Your task to perform on an android device: open app "Skype" (install if not already installed) Image 0: 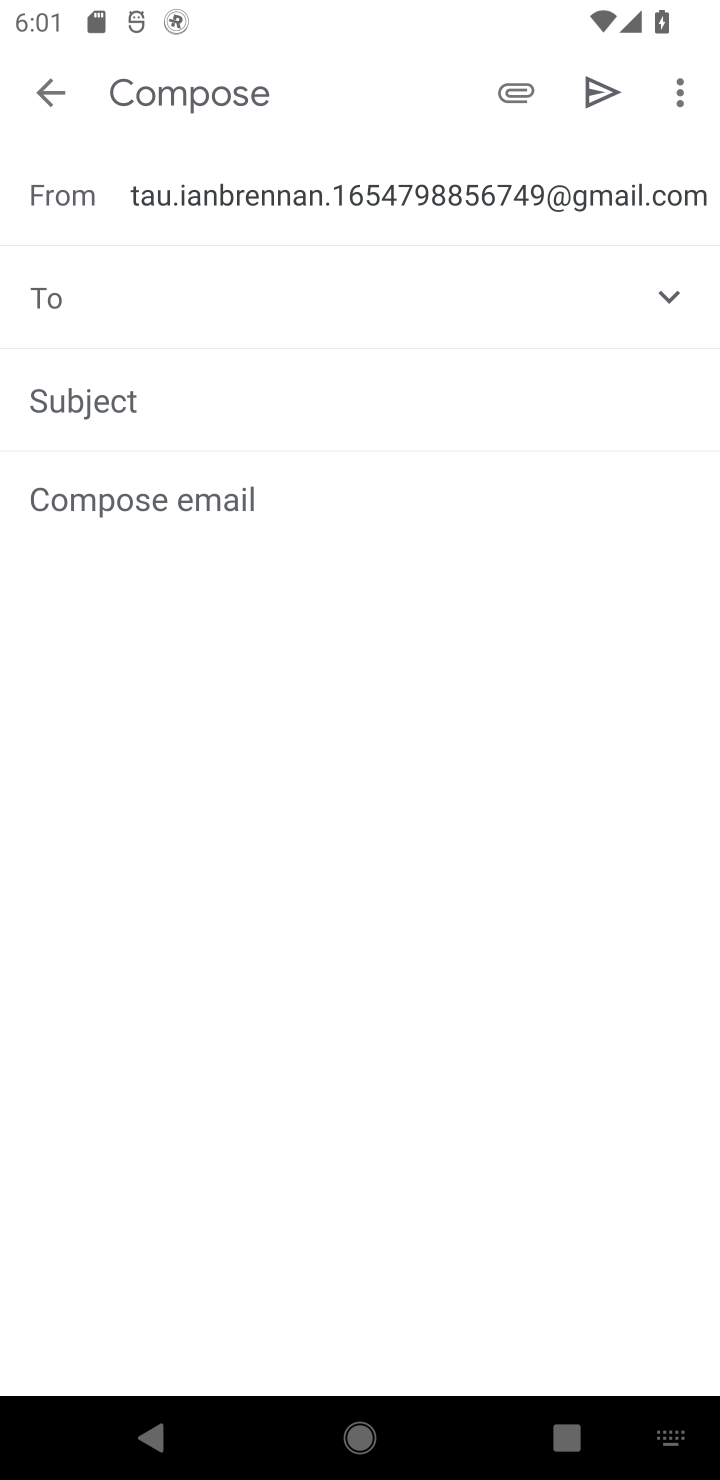
Step 0: press home button
Your task to perform on an android device: open app "Skype" (install if not already installed) Image 1: 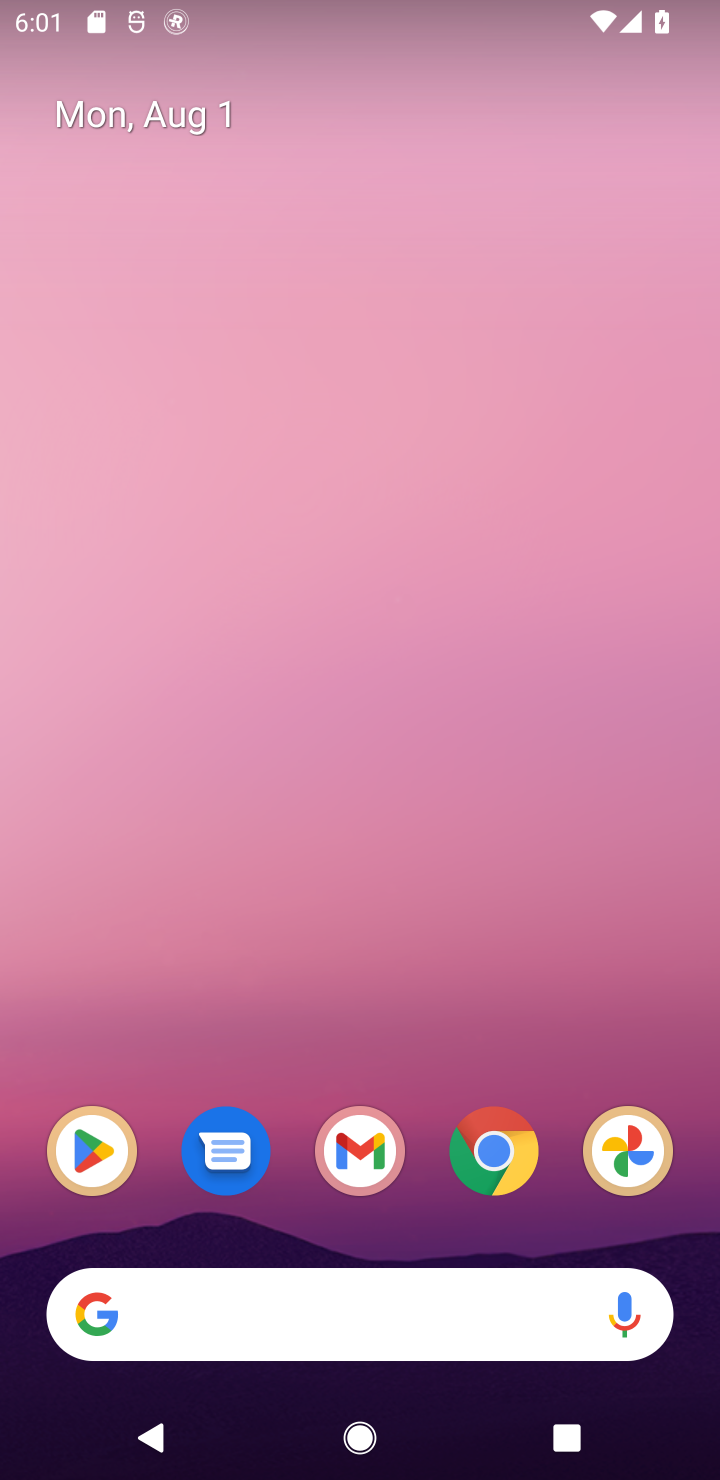
Step 1: click (82, 1155)
Your task to perform on an android device: open app "Skype" (install if not already installed) Image 2: 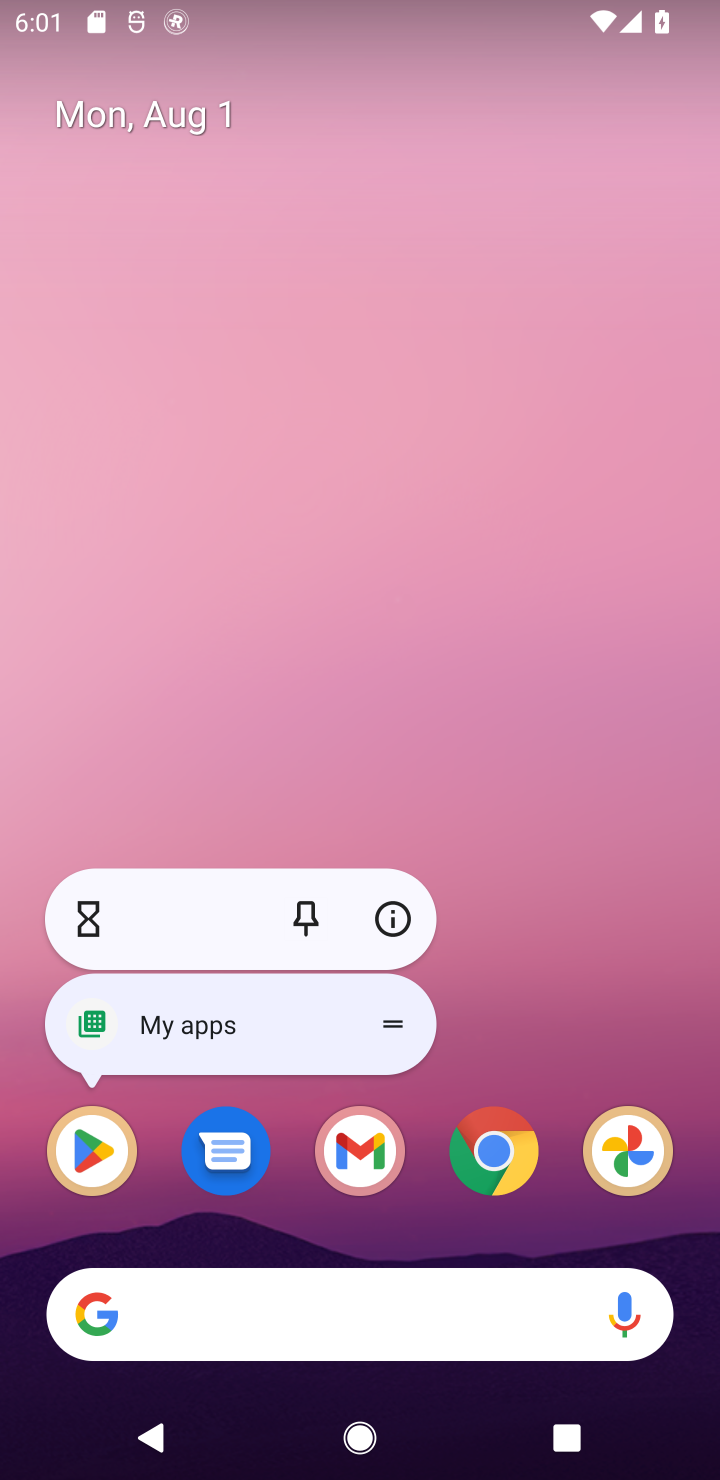
Step 2: click (98, 1155)
Your task to perform on an android device: open app "Skype" (install if not already installed) Image 3: 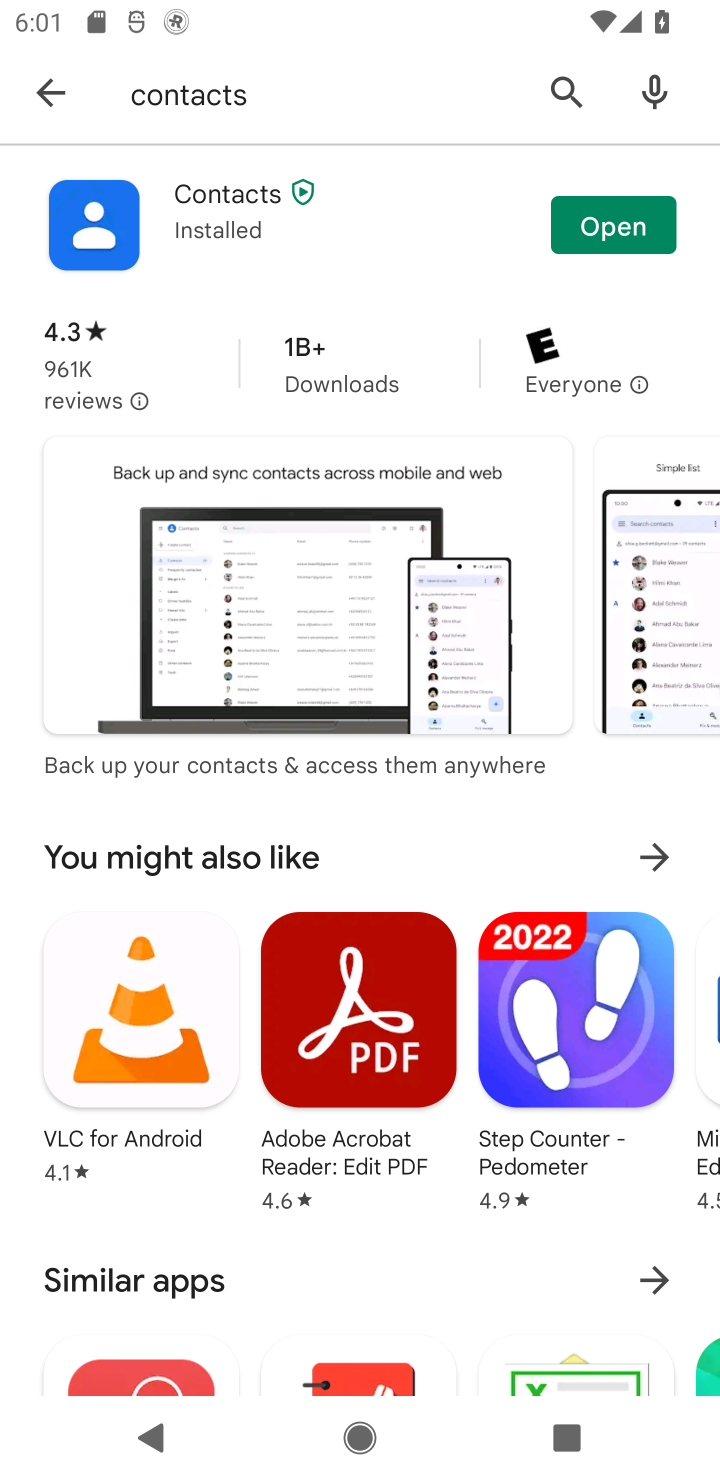
Step 3: click (545, 76)
Your task to perform on an android device: open app "Skype" (install if not already installed) Image 4: 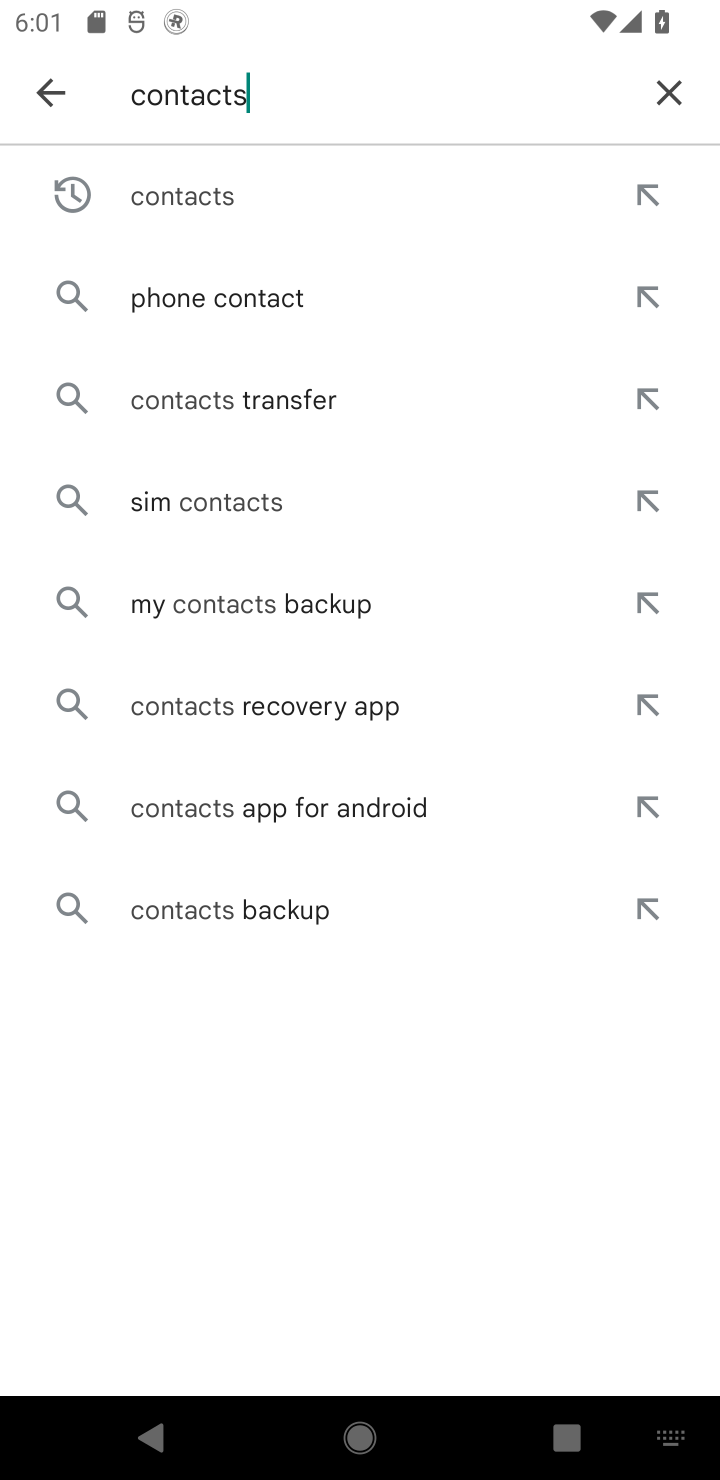
Step 4: click (657, 94)
Your task to perform on an android device: open app "Skype" (install if not already installed) Image 5: 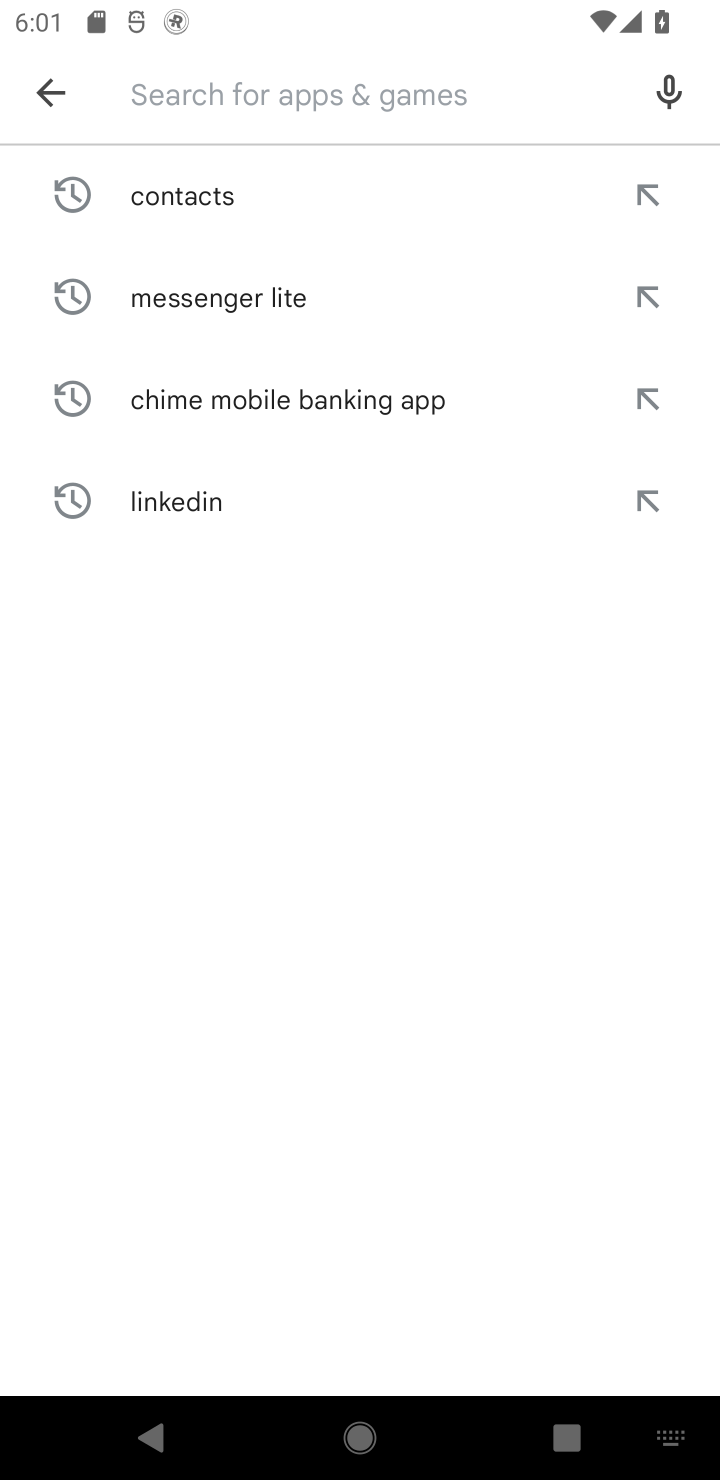
Step 5: type "Skype"
Your task to perform on an android device: open app "Skype" (install if not already installed) Image 6: 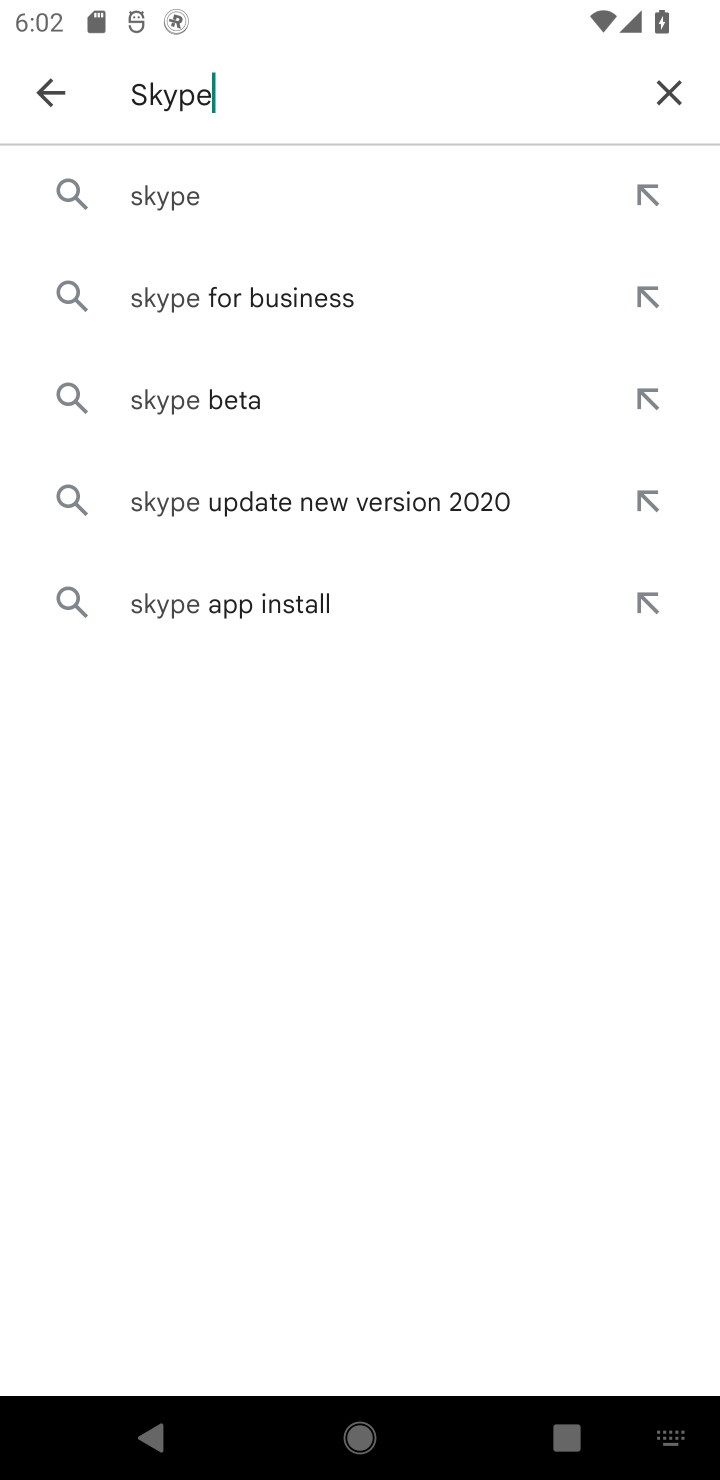
Step 6: click (176, 223)
Your task to perform on an android device: open app "Skype" (install if not already installed) Image 7: 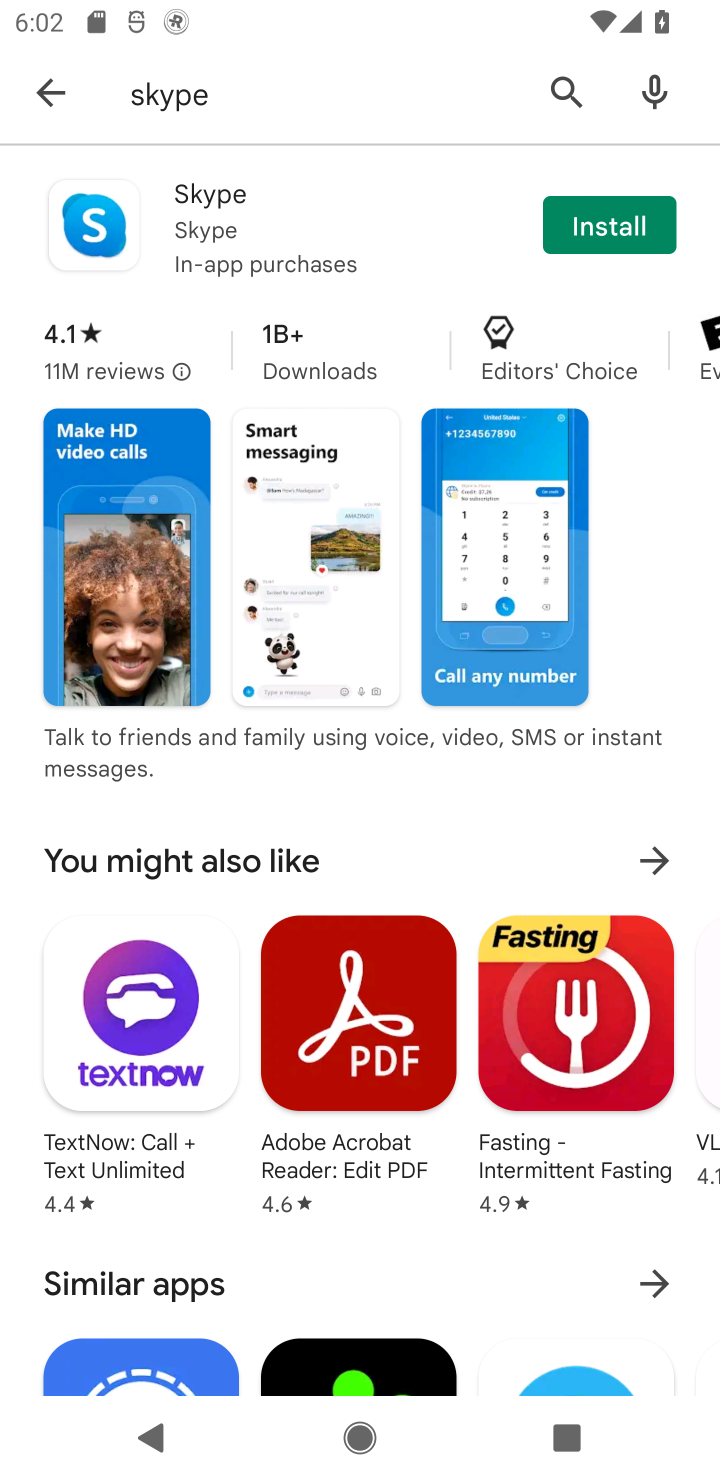
Step 7: click (628, 234)
Your task to perform on an android device: open app "Skype" (install if not already installed) Image 8: 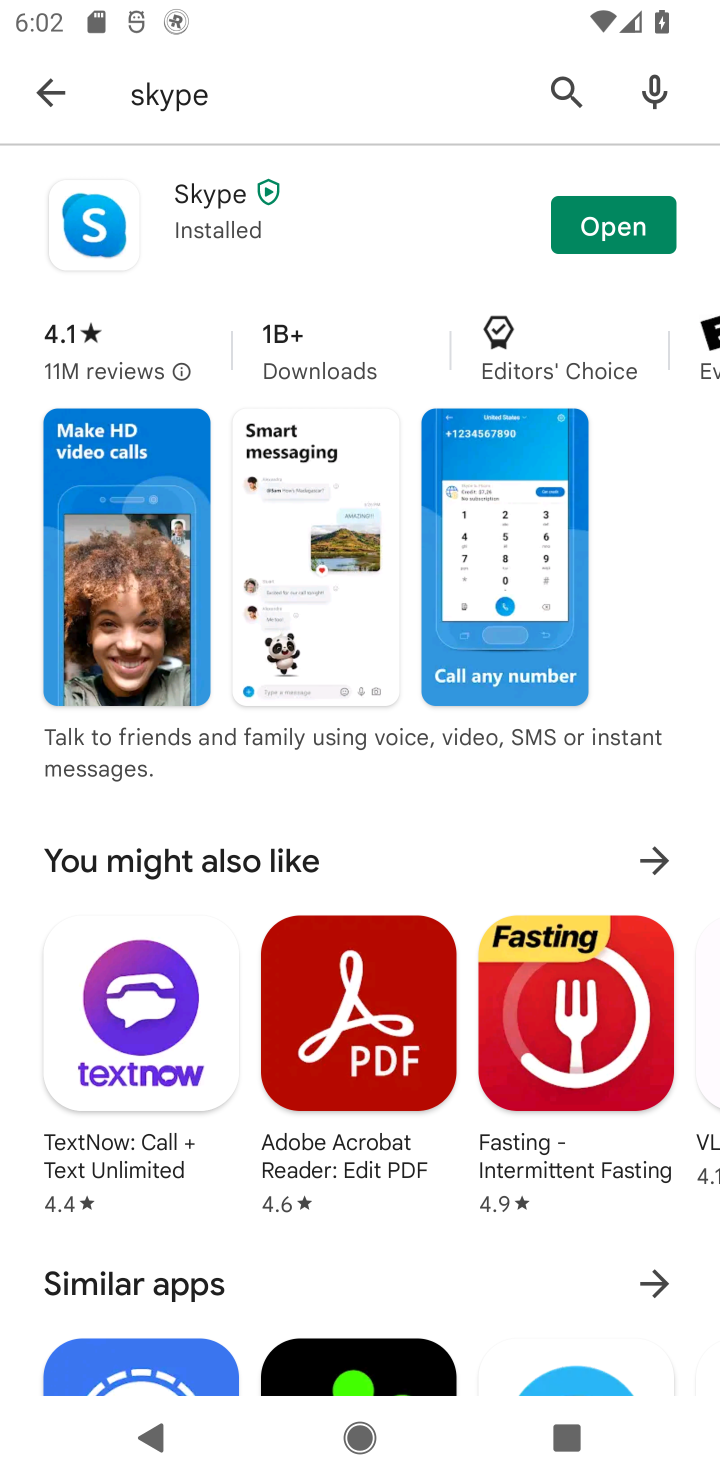
Step 8: click (613, 236)
Your task to perform on an android device: open app "Skype" (install if not already installed) Image 9: 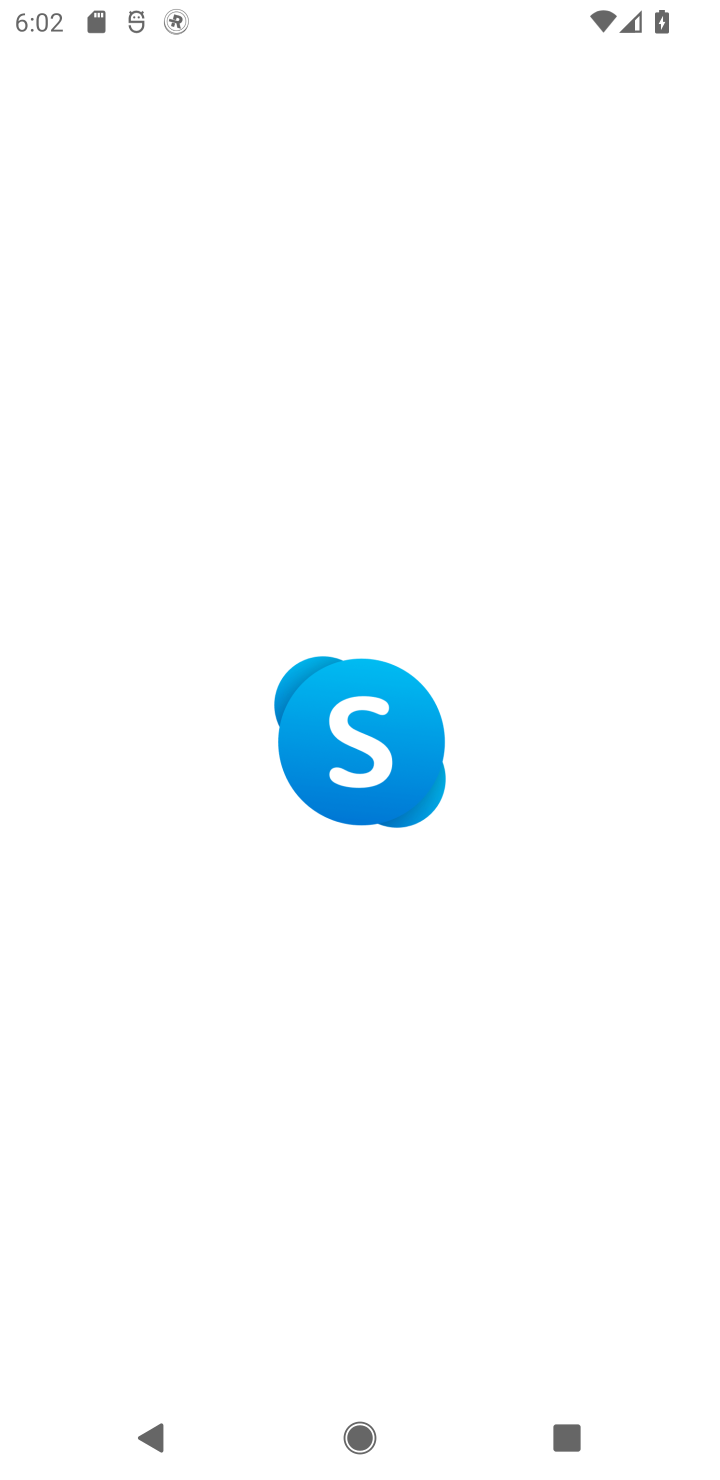
Step 9: task complete